Your task to perform on an android device: check out phone information Image 0: 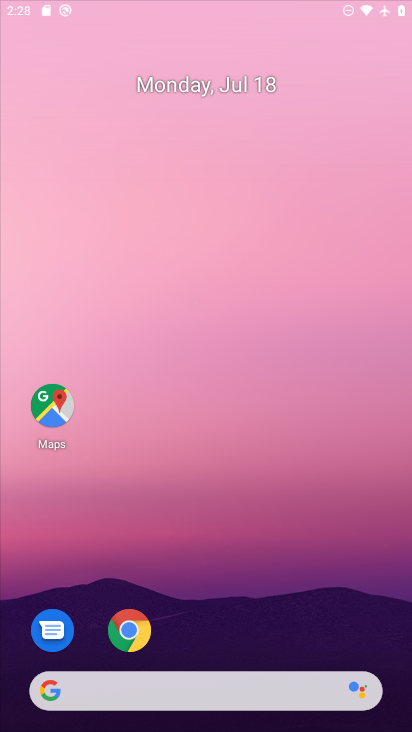
Step 0: press home button
Your task to perform on an android device: check out phone information Image 1: 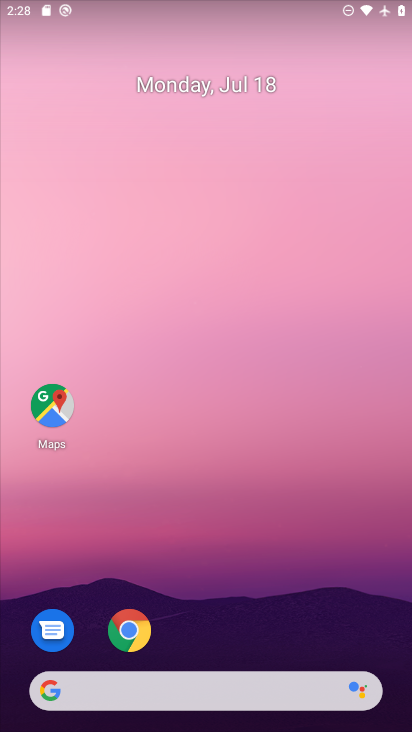
Step 1: drag from (181, 649) to (154, 13)
Your task to perform on an android device: check out phone information Image 2: 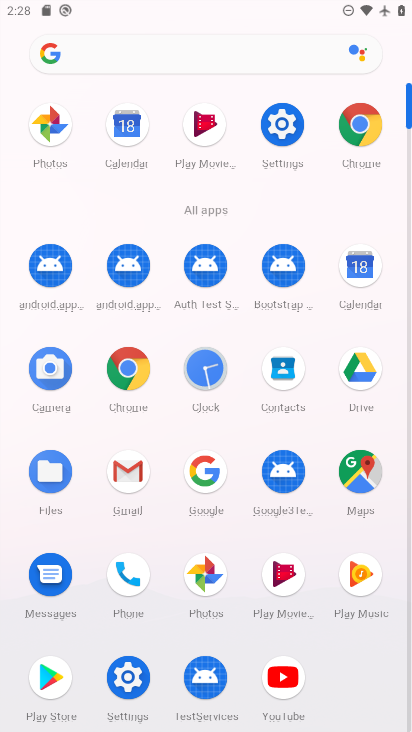
Step 2: click (298, 125)
Your task to perform on an android device: check out phone information Image 3: 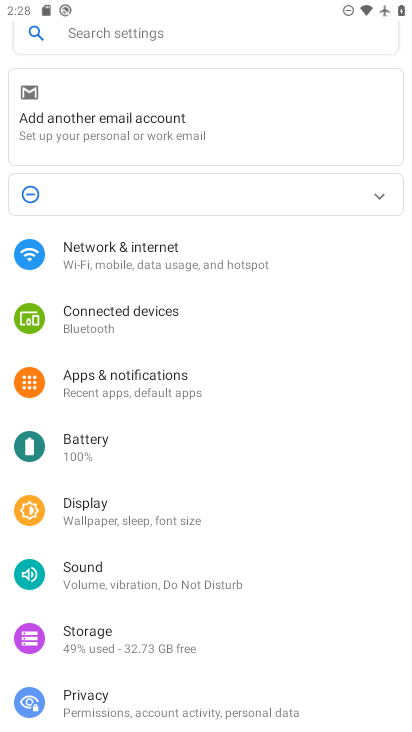
Step 3: drag from (241, 558) to (265, 29)
Your task to perform on an android device: check out phone information Image 4: 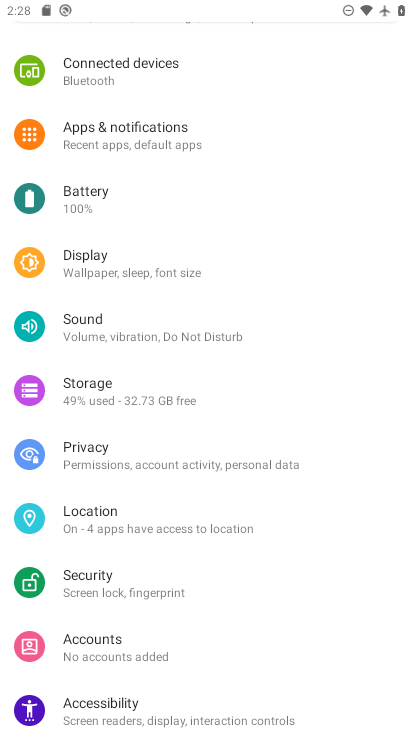
Step 4: drag from (291, 658) to (336, 0)
Your task to perform on an android device: check out phone information Image 5: 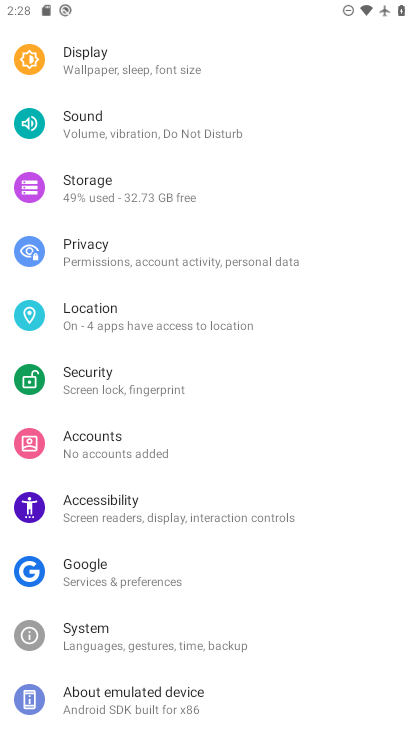
Step 5: click (173, 708)
Your task to perform on an android device: check out phone information Image 6: 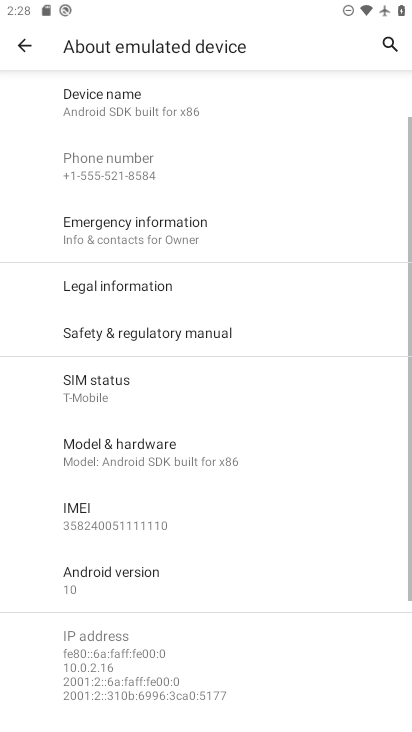
Step 6: task complete